Your task to perform on an android device: refresh tabs in the chrome app Image 0: 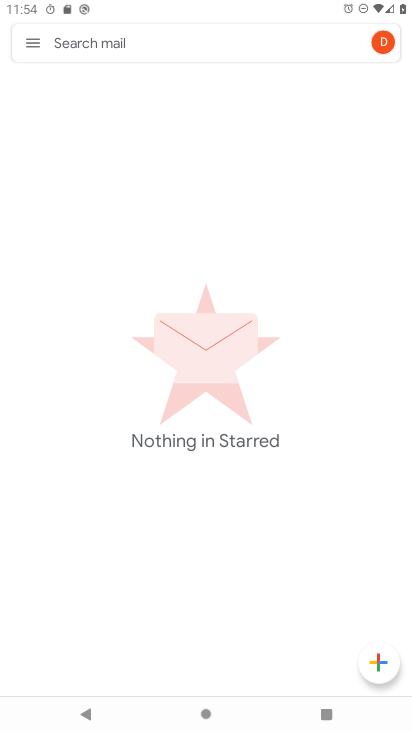
Step 0: press home button
Your task to perform on an android device: refresh tabs in the chrome app Image 1: 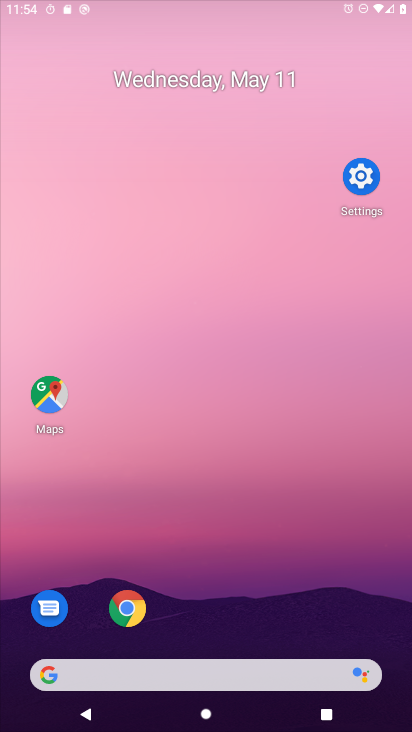
Step 1: drag from (261, 579) to (151, 41)
Your task to perform on an android device: refresh tabs in the chrome app Image 2: 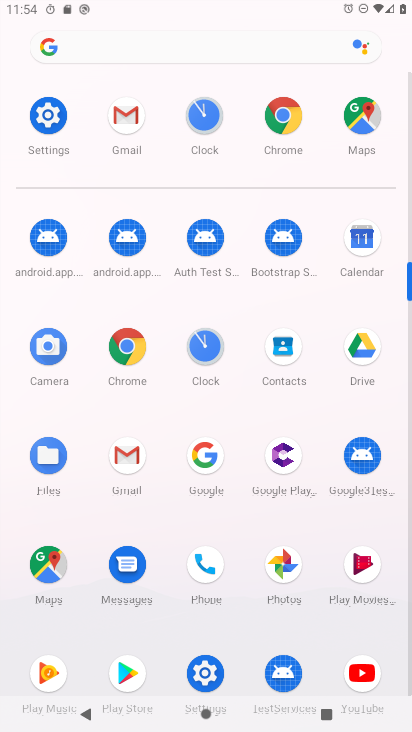
Step 2: click (288, 113)
Your task to perform on an android device: refresh tabs in the chrome app Image 3: 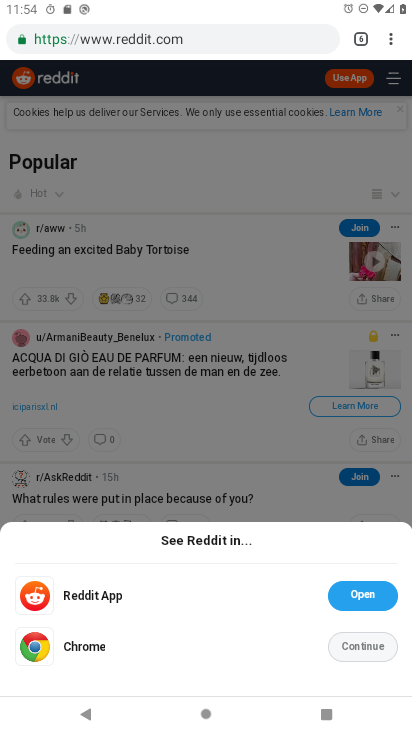
Step 3: click (393, 42)
Your task to perform on an android device: refresh tabs in the chrome app Image 4: 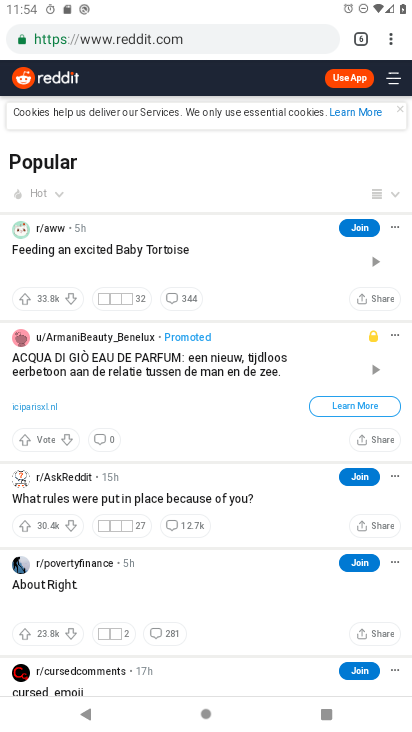
Step 4: click (389, 37)
Your task to perform on an android device: refresh tabs in the chrome app Image 5: 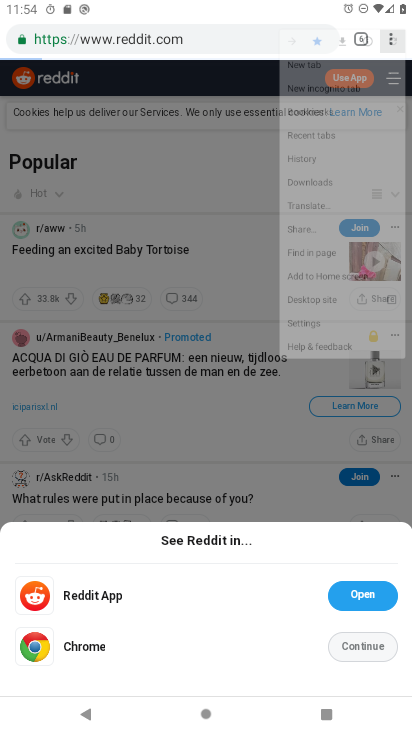
Step 5: click (389, 35)
Your task to perform on an android device: refresh tabs in the chrome app Image 6: 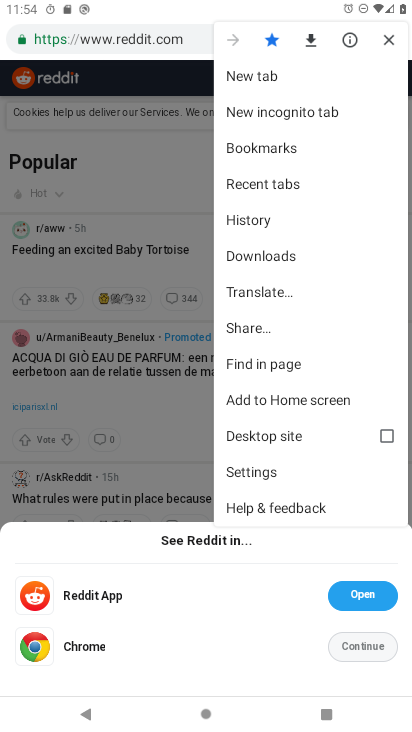
Step 6: click (388, 37)
Your task to perform on an android device: refresh tabs in the chrome app Image 7: 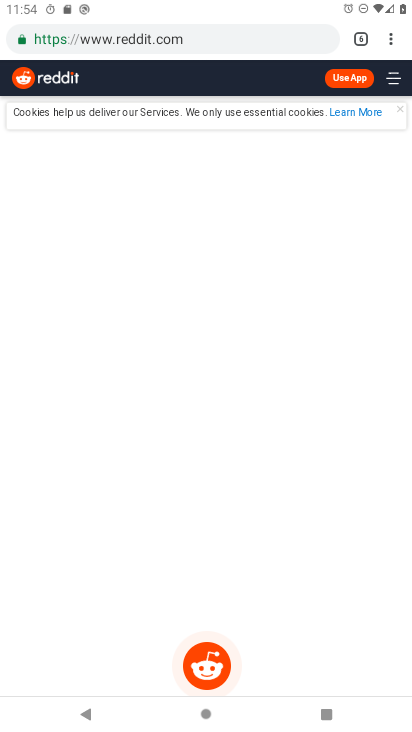
Step 7: task complete